Your task to perform on an android device: What's the price of the LG TV? Image 0: 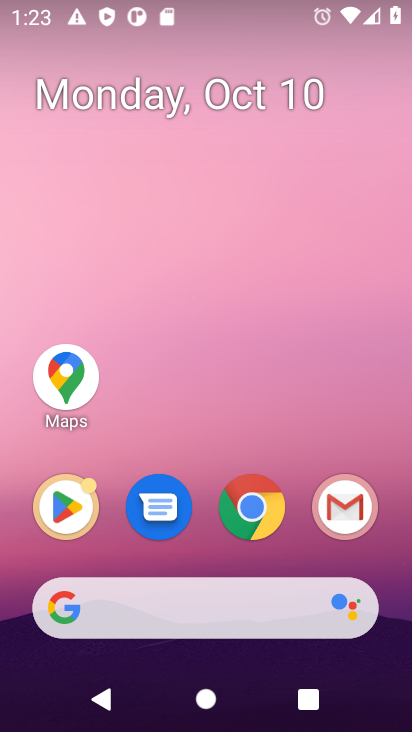
Step 0: press home button
Your task to perform on an android device: What's the price of the LG TV? Image 1: 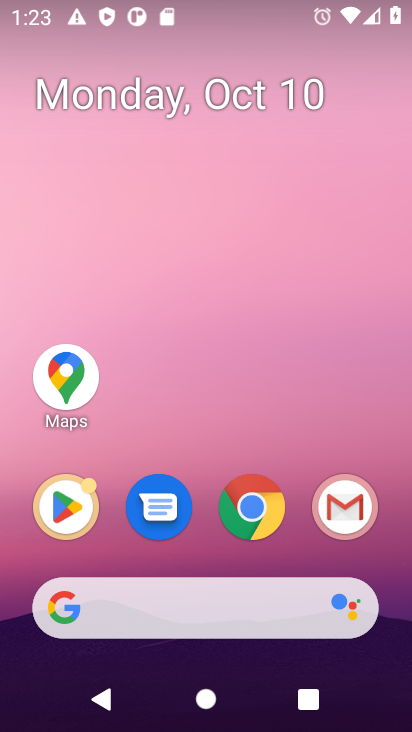
Step 1: click (206, 592)
Your task to perform on an android device: What's the price of the LG TV? Image 2: 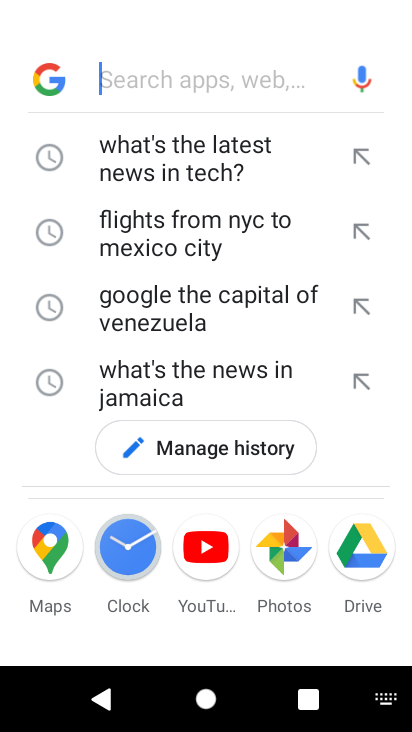
Step 2: type "What's the price of the LG TV"
Your task to perform on an android device: What's the price of the LG TV? Image 3: 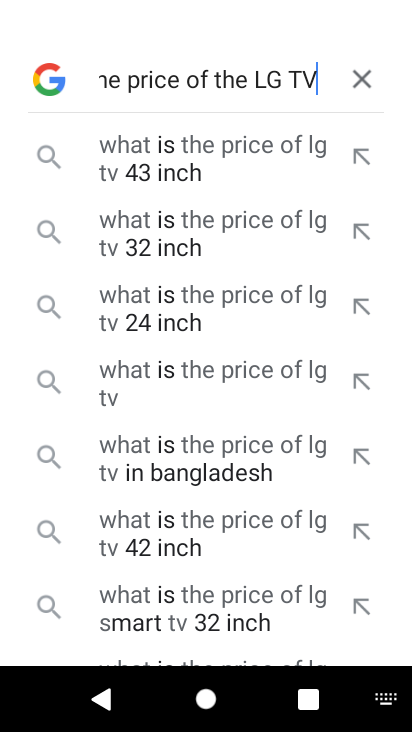
Step 3: press enter
Your task to perform on an android device: What's the price of the LG TV? Image 4: 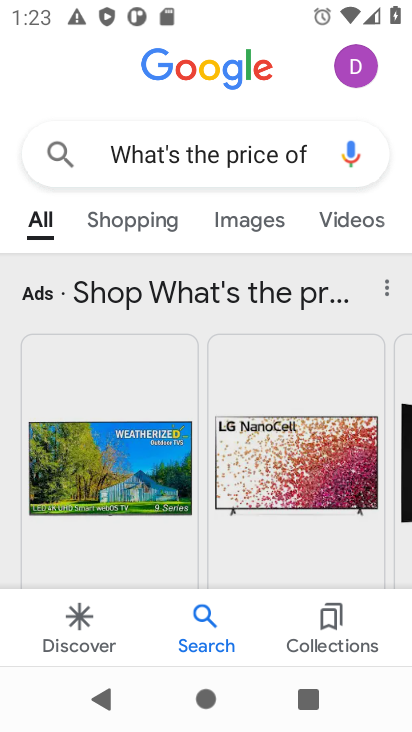
Step 4: task complete